Your task to perform on an android device: Open Wikipedia Image 0: 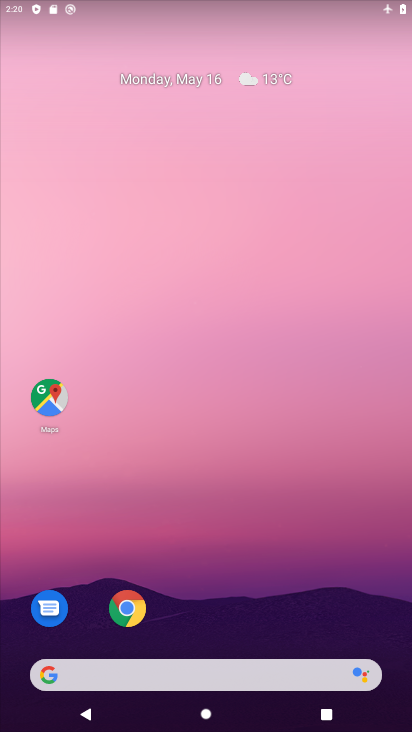
Step 0: click (121, 605)
Your task to perform on an android device: Open Wikipedia Image 1: 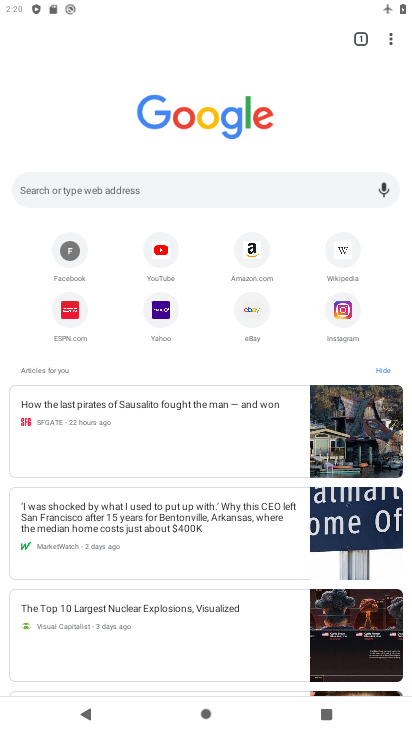
Step 1: click (344, 260)
Your task to perform on an android device: Open Wikipedia Image 2: 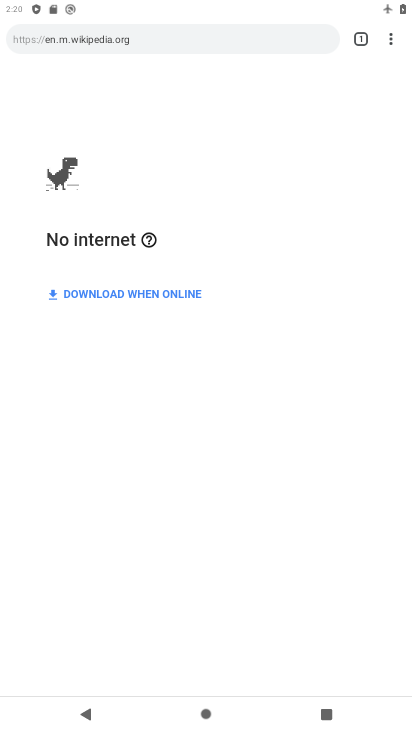
Step 2: task complete